Your task to perform on an android device: find photos in the google photos app Image 0: 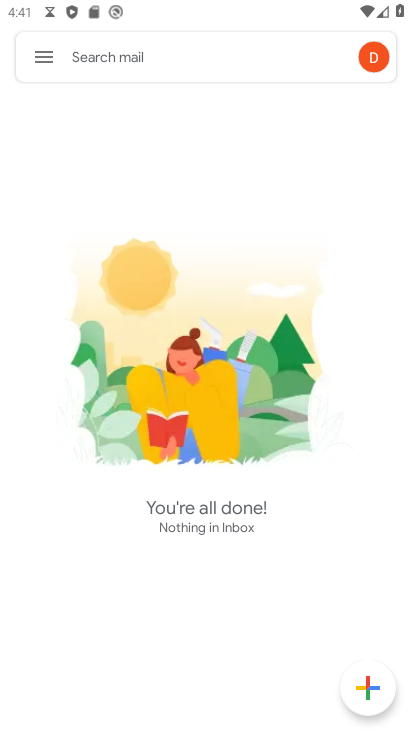
Step 0: press home button
Your task to perform on an android device: find photos in the google photos app Image 1: 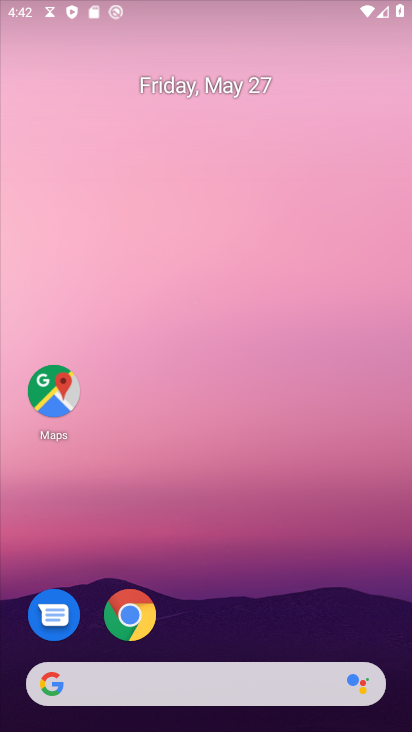
Step 1: drag from (265, 432) to (136, 67)
Your task to perform on an android device: find photos in the google photos app Image 2: 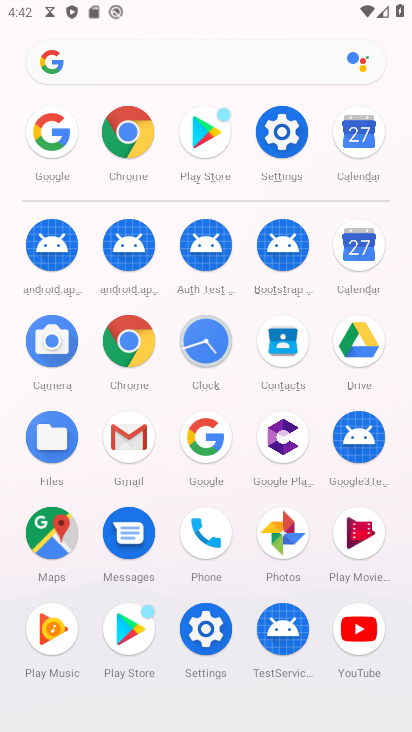
Step 2: click (280, 533)
Your task to perform on an android device: find photos in the google photos app Image 3: 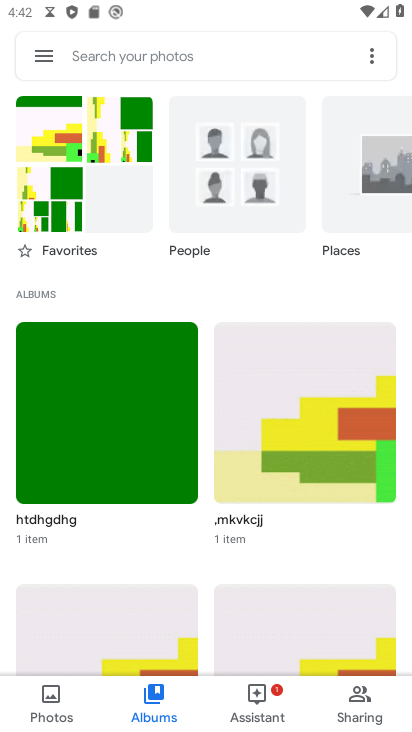
Step 3: click (46, 694)
Your task to perform on an android device: find photos in the google photos app Image 4: 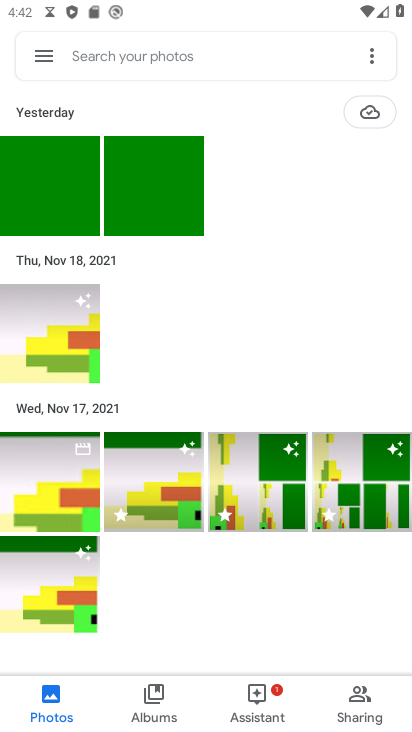
Step 4: task complete